Your task to perform on an android device: Open the stopwatch Image 0: 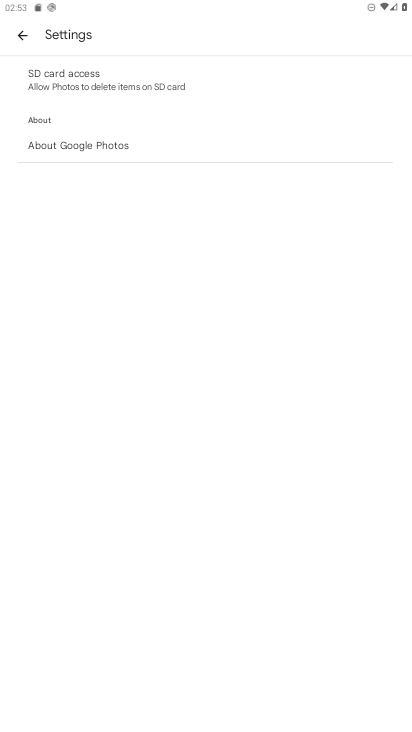
Step 0: press home button
Your task to perform on an android device: Open the stopwatch Image 1: 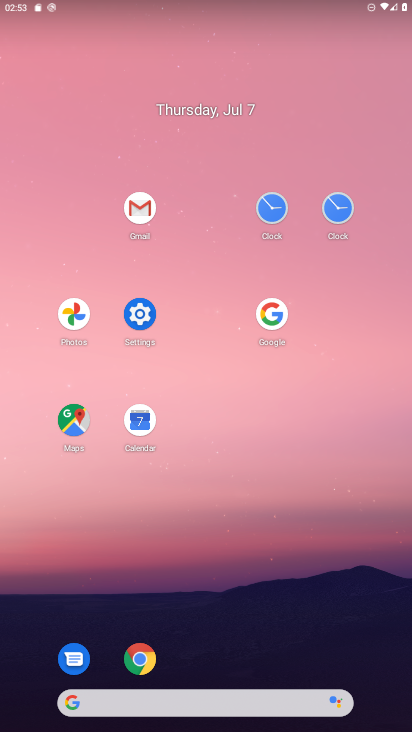
Step 1: click (274, 205)
Your task to perform on an android device: Open the stopwatch Image 2: 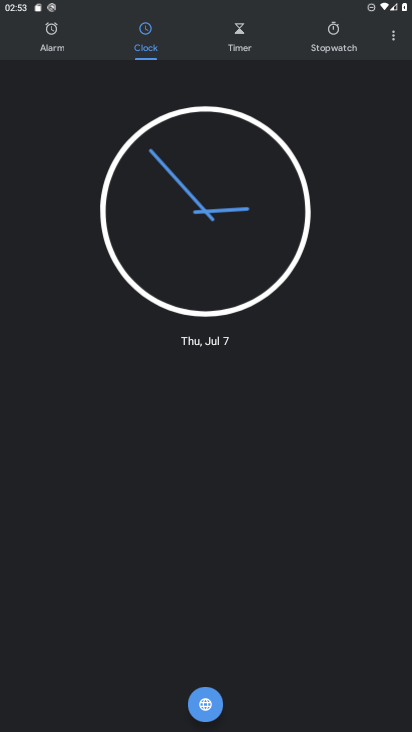
Step 2: click (346, 35)
Your task to perform on an android device: Open the stopwatch Image 3: 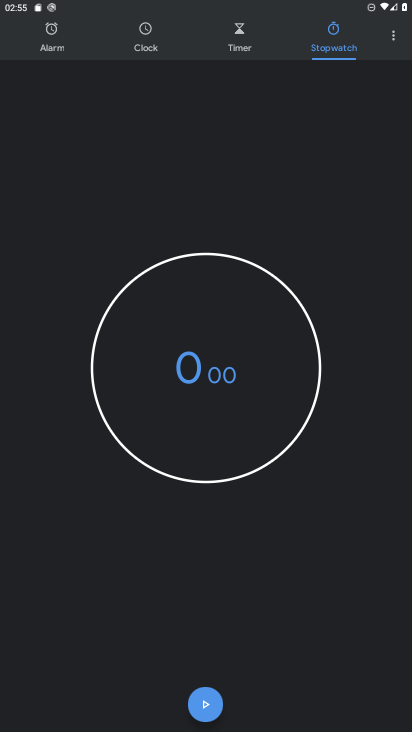
Step 3: task complete